Your task to perform on an android device: toggle show notifications on the lock screen Image 0: 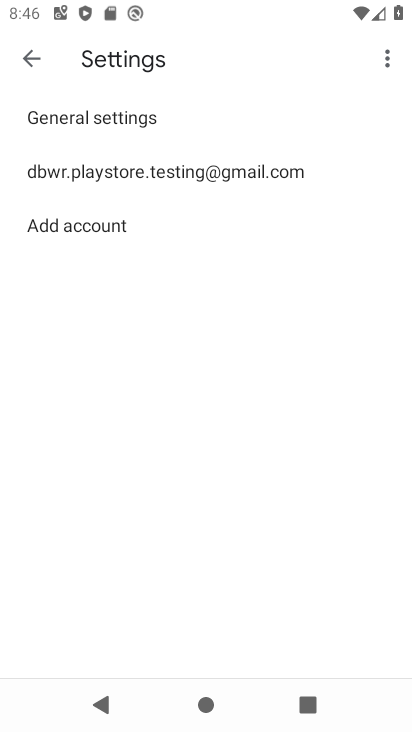
Step 0: press home button
Your task to perform on an android device: toggle show notifications on the lock screen Image 1: 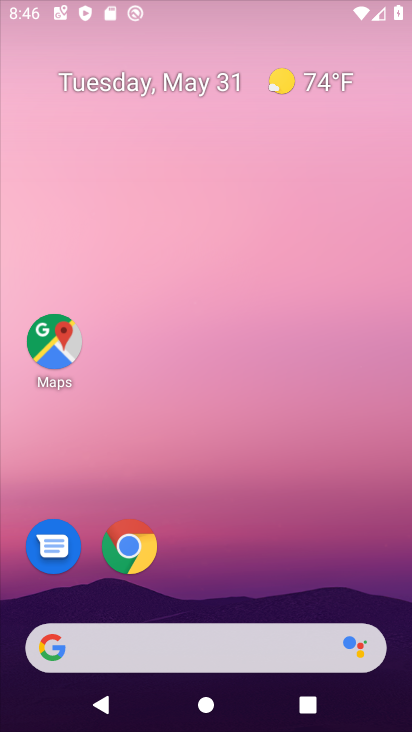
Step 1: drag from (230, 578) to (286, 30)
Your task to perform on an android device: toggle show notifications on the lock screen Image 2: 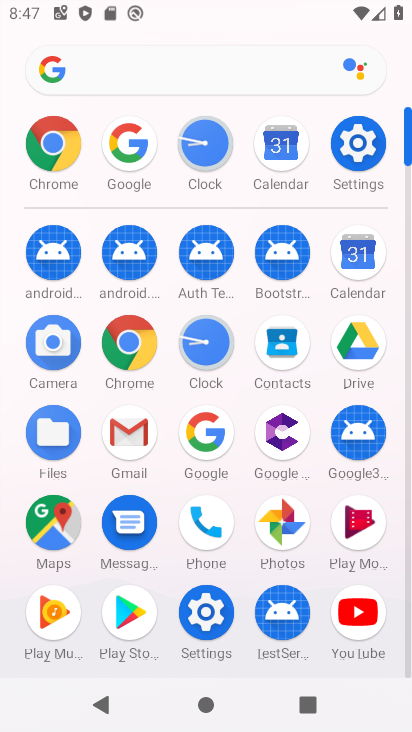
Step 2: click (361, 142)
Your task to perform on an android device: toggle show notifications on the lock screen Image 3: 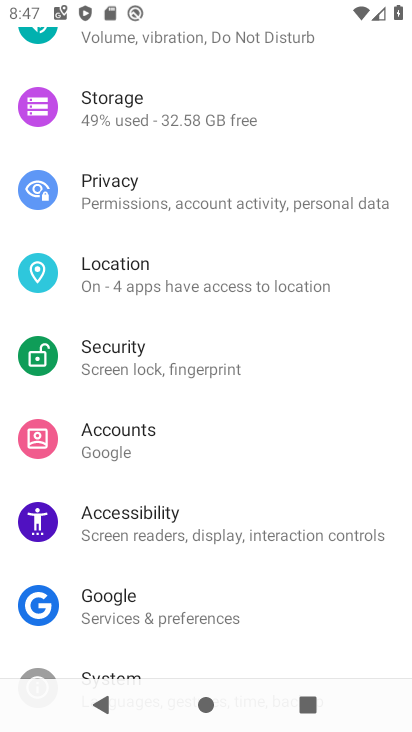
Step 3: click (193, 518)
Your task to perform on an android device: toggle show notifications on the lock screen Image 4: 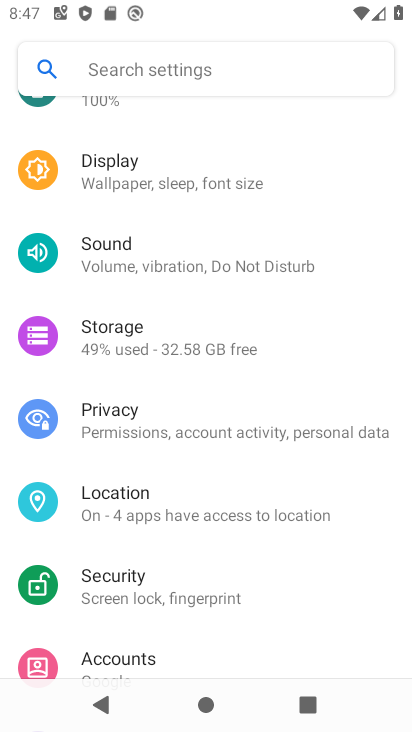
Step 4: drag from (160, 167) to (139, 640)
Your task to perform on an android device: toggle show notifications on the lock screen Image 5: 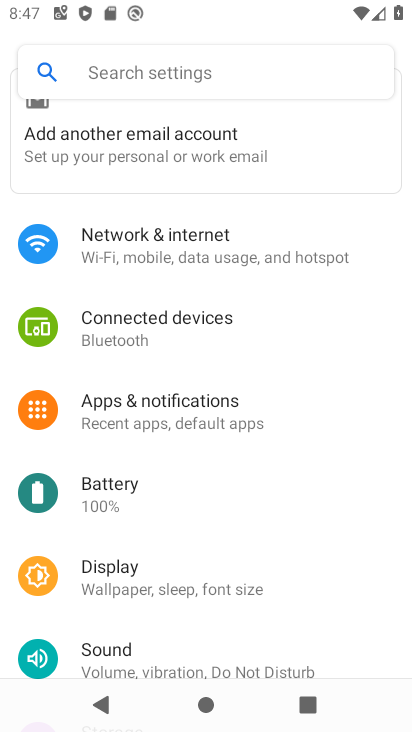
Step 5: click (142, 409)
Your task to perform on an android device: toggle show notifications on the lock screen Image 6: 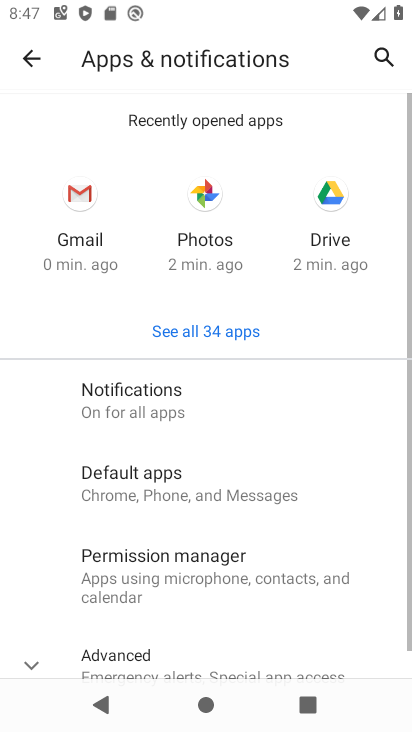
Step 6: click (153, 412)
Your task to perform on an android device: toggle show notifications on the lock screen Image 7: 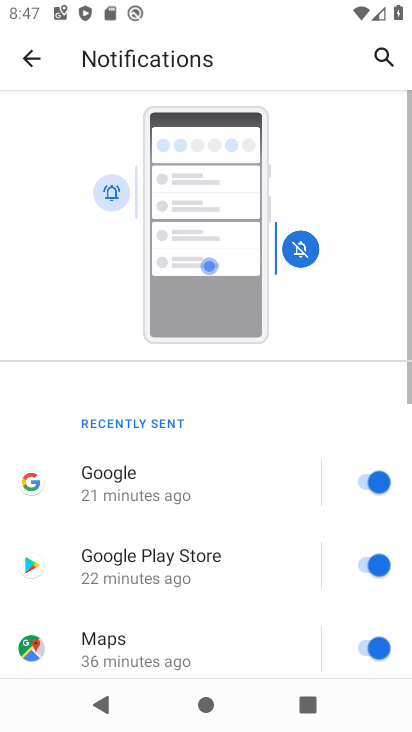
Step 7: drag from (226, 599) to (213, 51)
Your task to perform on an android device: toggle show notifications on the lock screen Image 8: 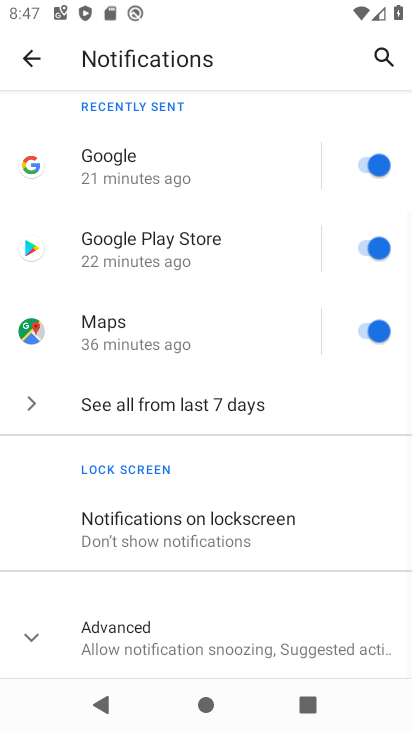
Step 8: click (176, 526)
Your task to perform on an android device: toggle show notifications on the lock screen Image 9: 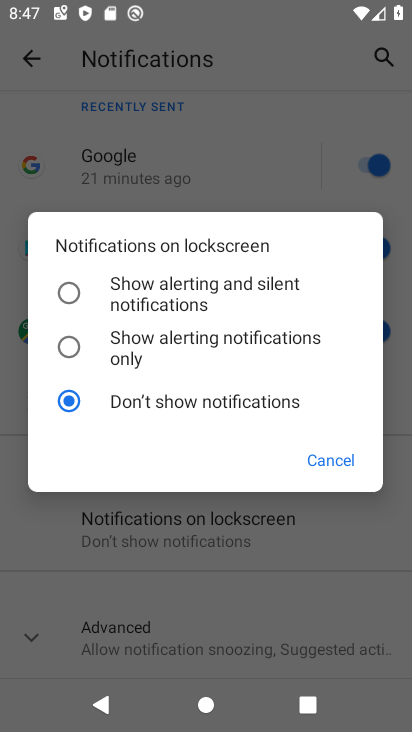
Step 9: click (82, 286)
Your task to perform on an android device: toggle show notifications on the lock screen Image 10: 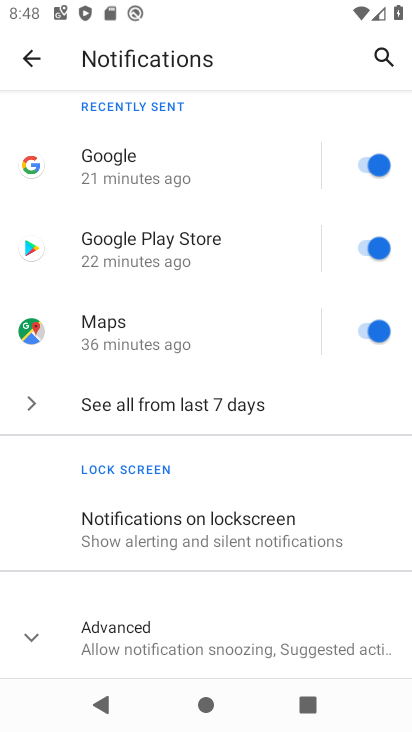
Step 10: task complete